Your task to perform on an android device: Show me popular videos on Youtube Image 0: 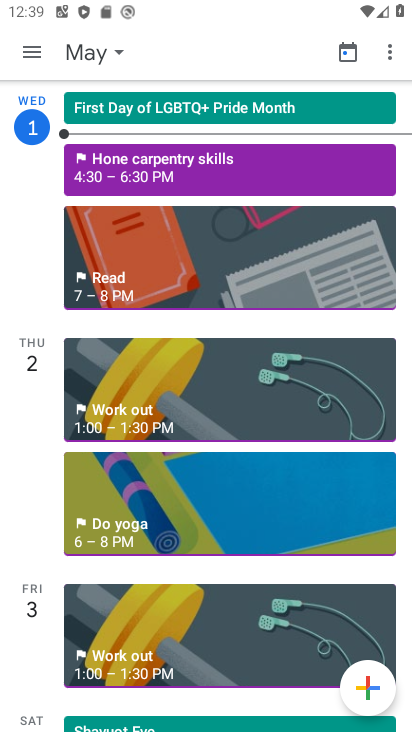
Step 0: task complete